Your task to perform on an android device: turn on improve location accuracy Image 0: 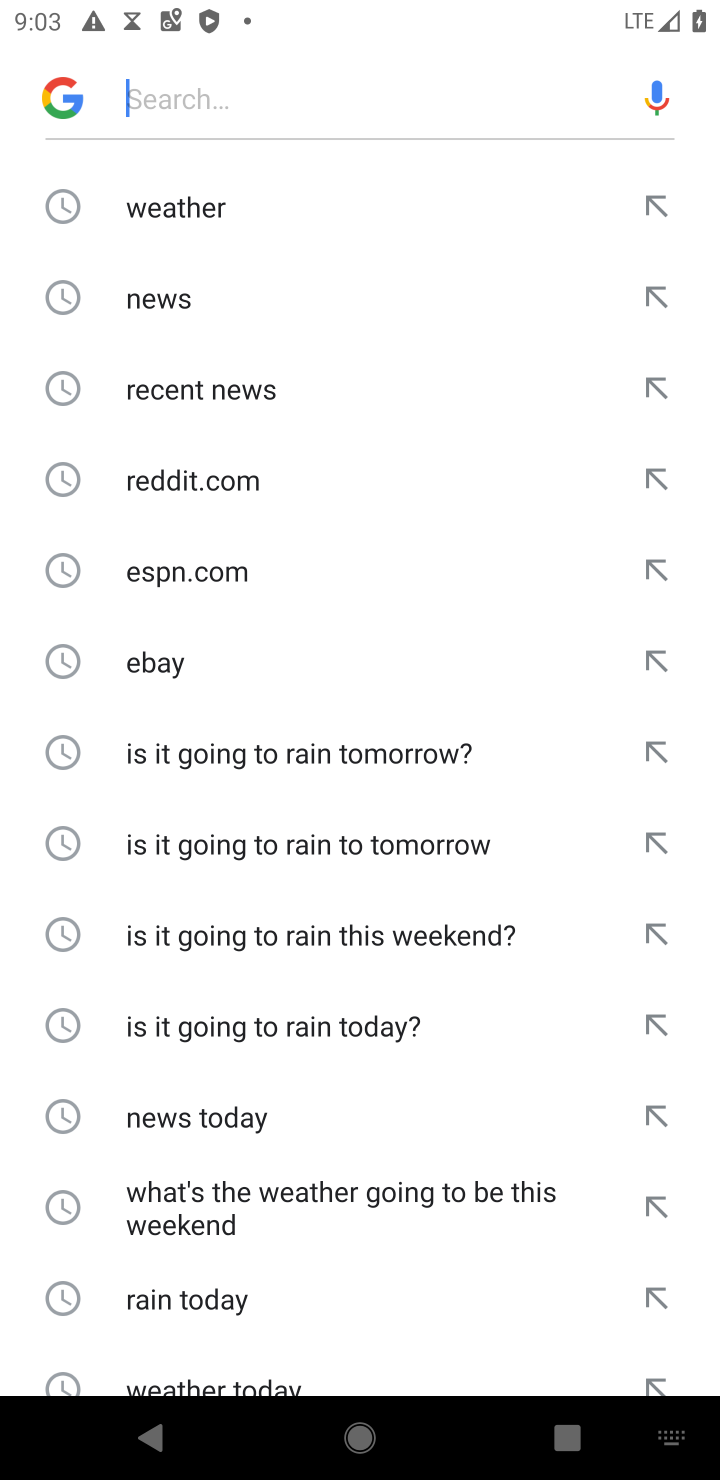
Step 0: press back button
Your task to perform on an android device: turn on improve location accuracy Image 1: 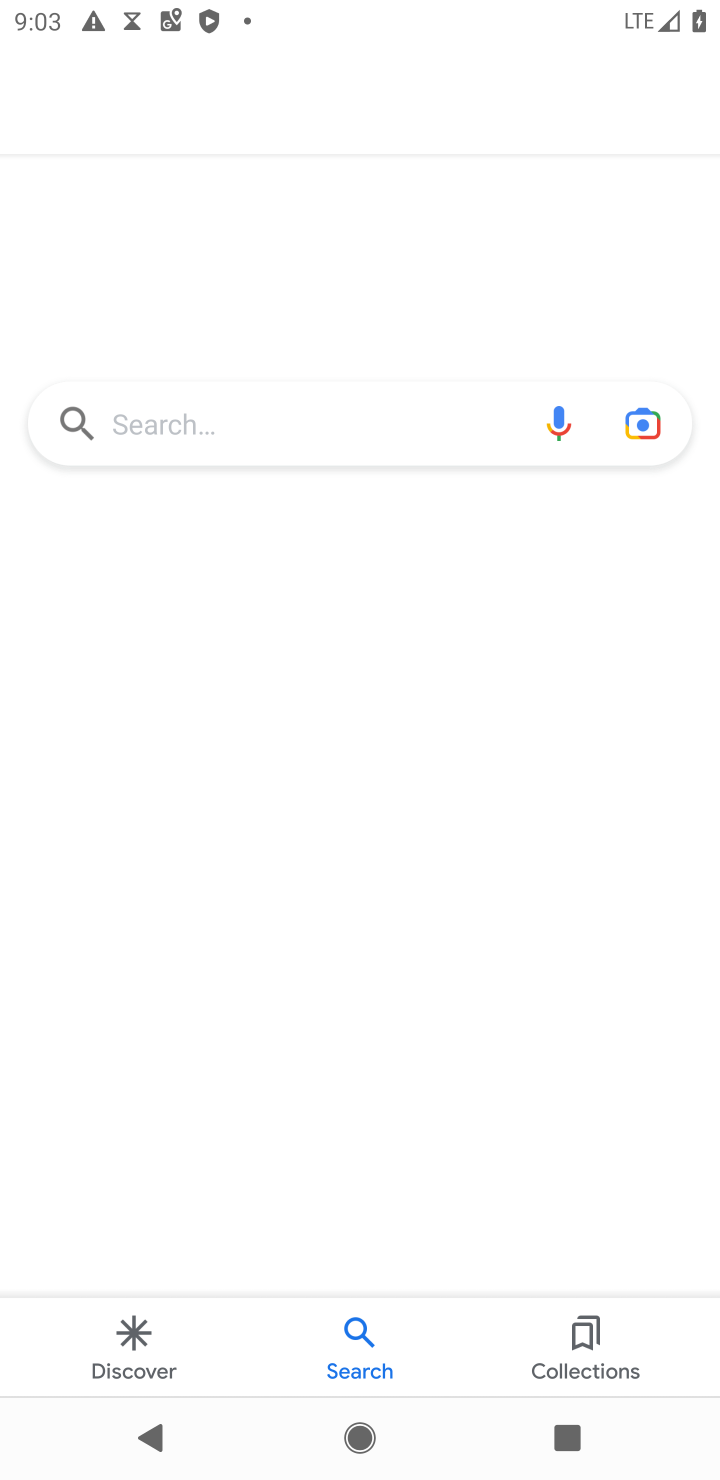
Step 1: press back button
Your task to perform on an android device: turn on improve location accuracy Image 2: 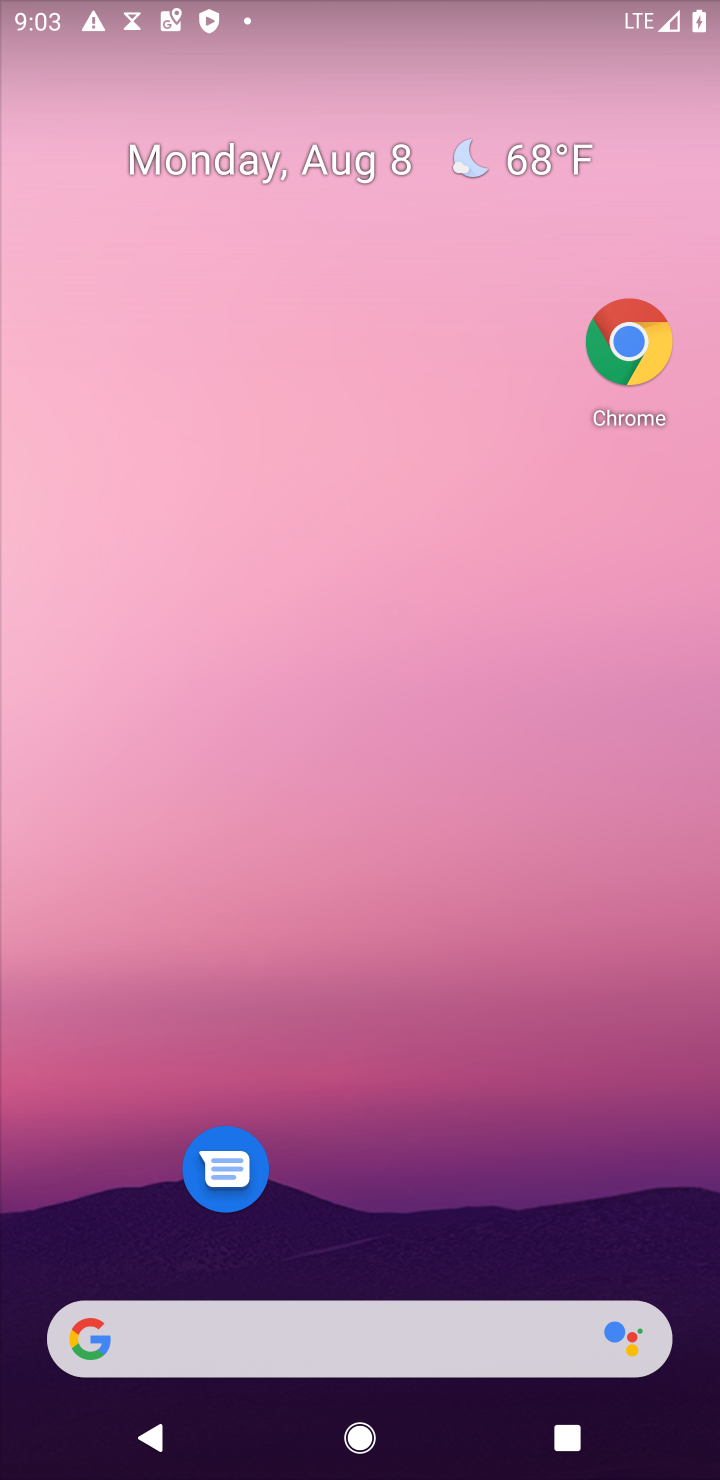
Step 2: drag from (344, 1311) to (565, 0)
Your task to perform on an android device: turn on improve location accuracy Image 3: 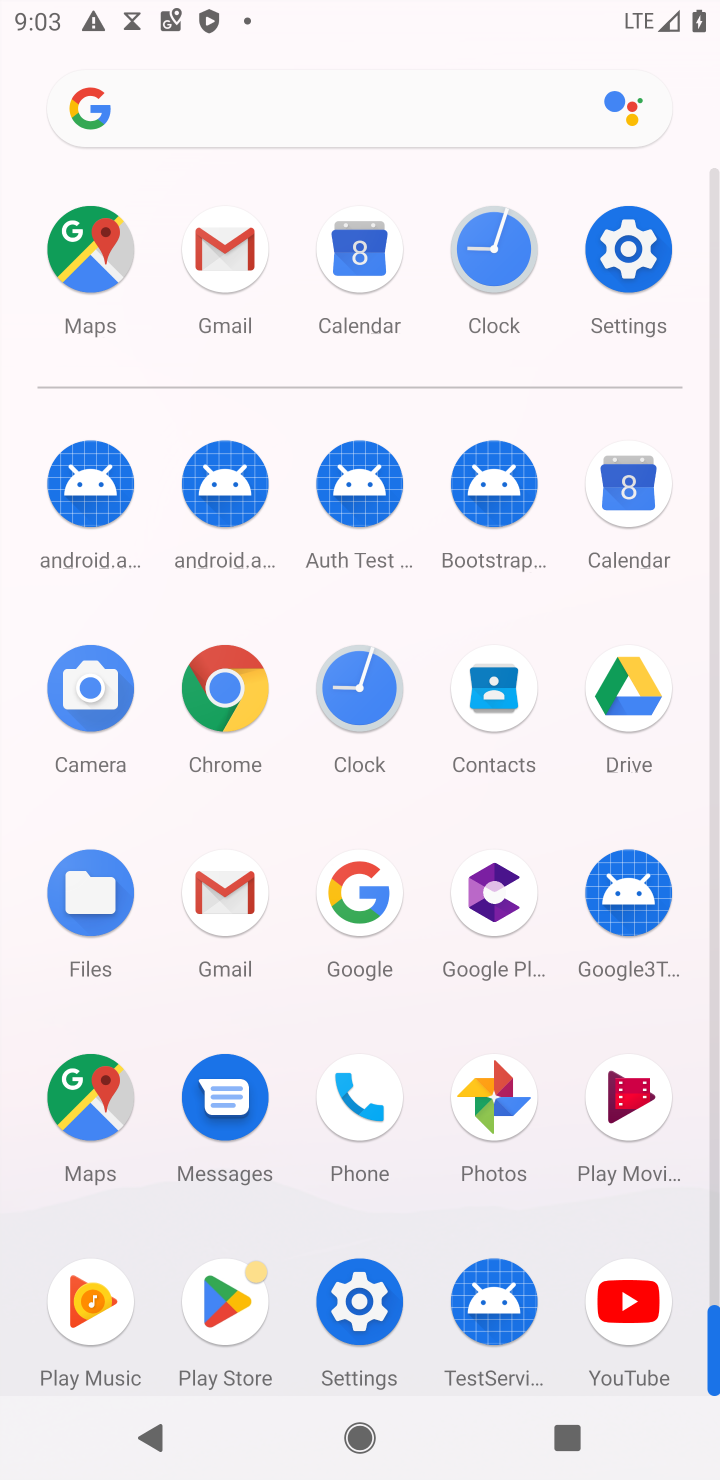
Step 3: click (637, 237)
Your task to perform on an android device: turn on improve location accuracy Image 4: 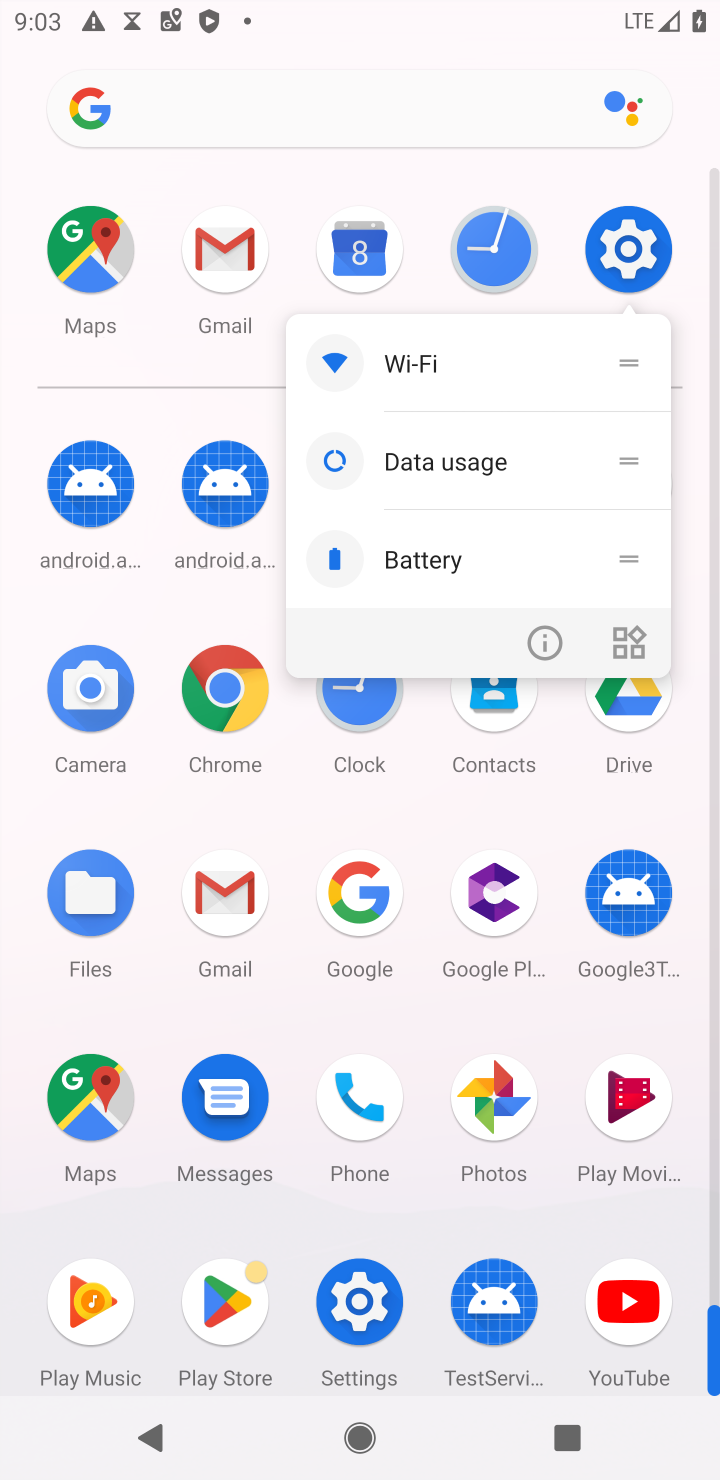
Step 4: click (648, 253)
Your task to perform on an android device: turn on improve location accuracy Image 5: 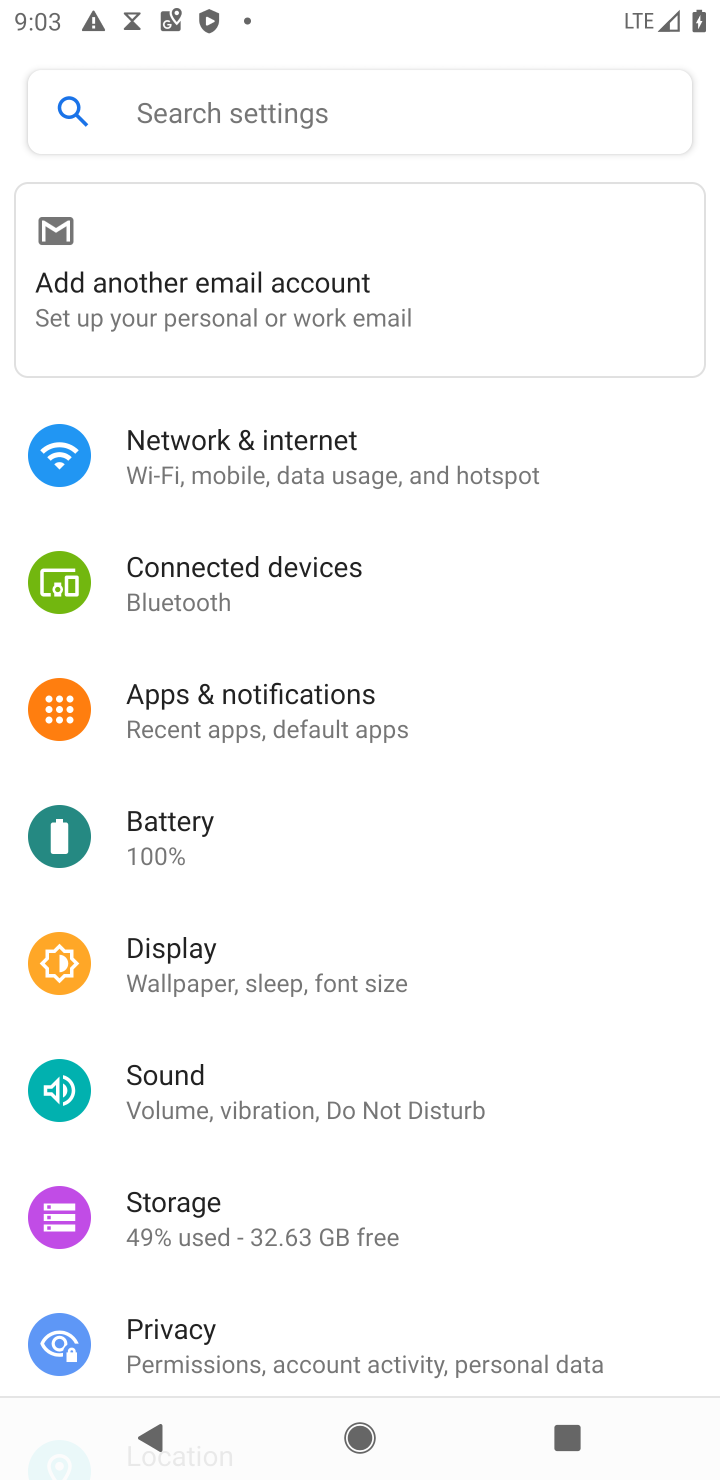
Step 5: drag from (303, 1238) to (485, 279)
Your task to perform on an android device: turn on improve location accuracy Image 6: 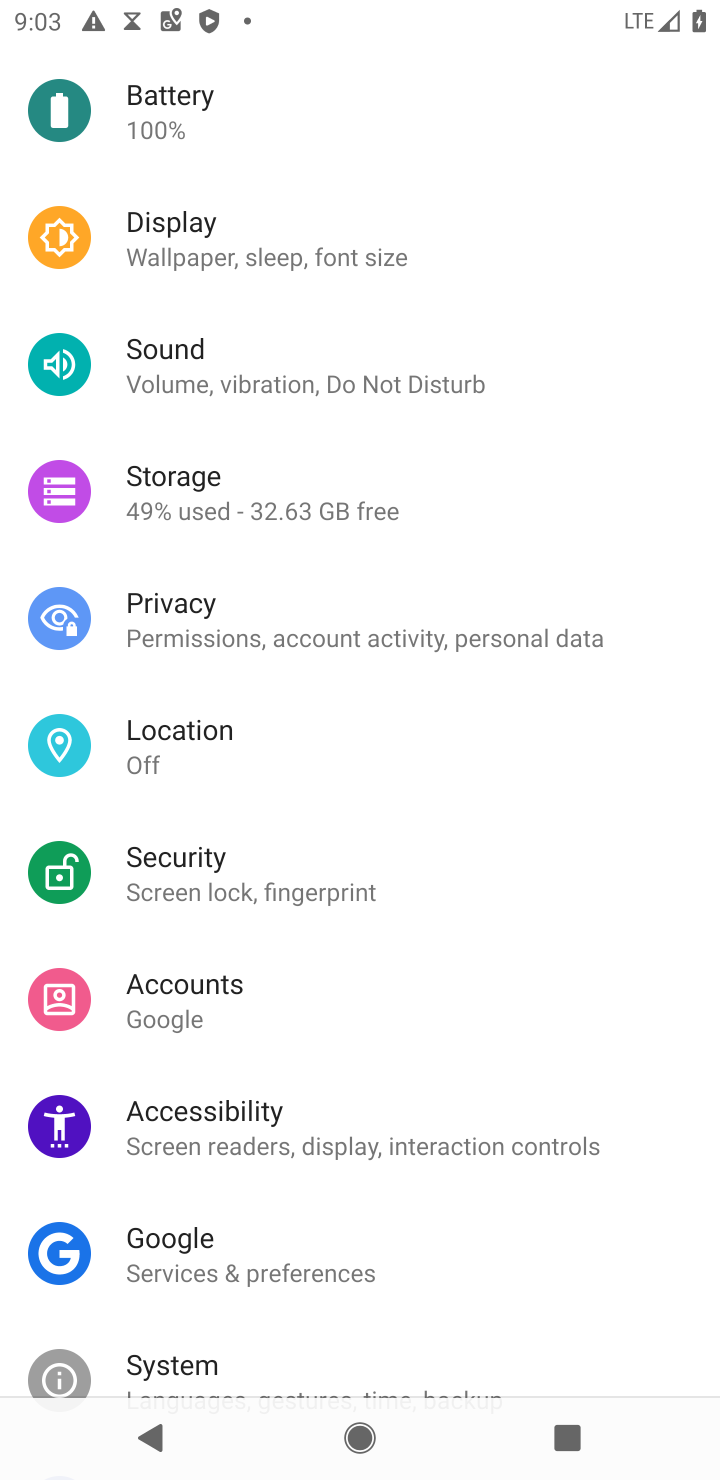
Step 6: click (204, 743)
Your task to perform on an android device: turn on improve location accuracy Image 7: 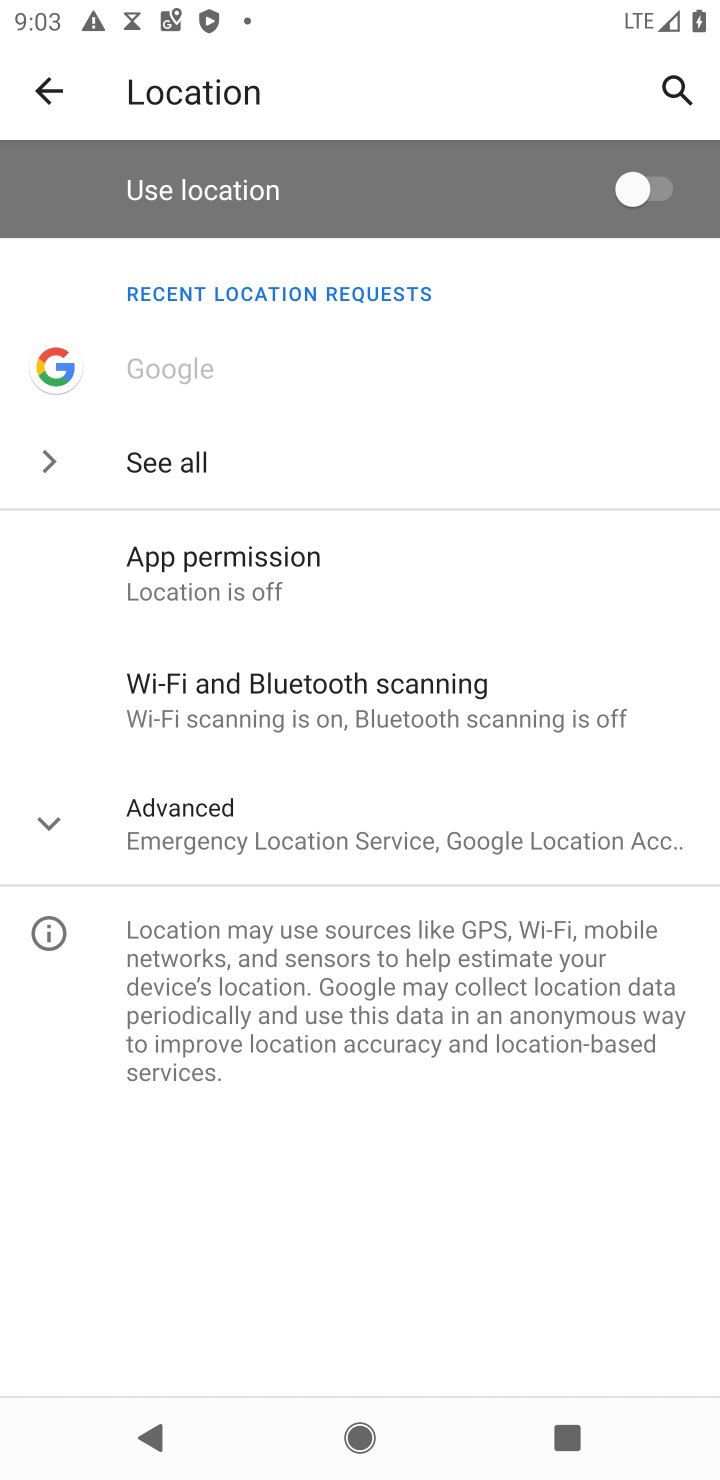
Step 7: click (218, 806)
Your task to perform on an android device: turn on improve location accuracy Image 8: 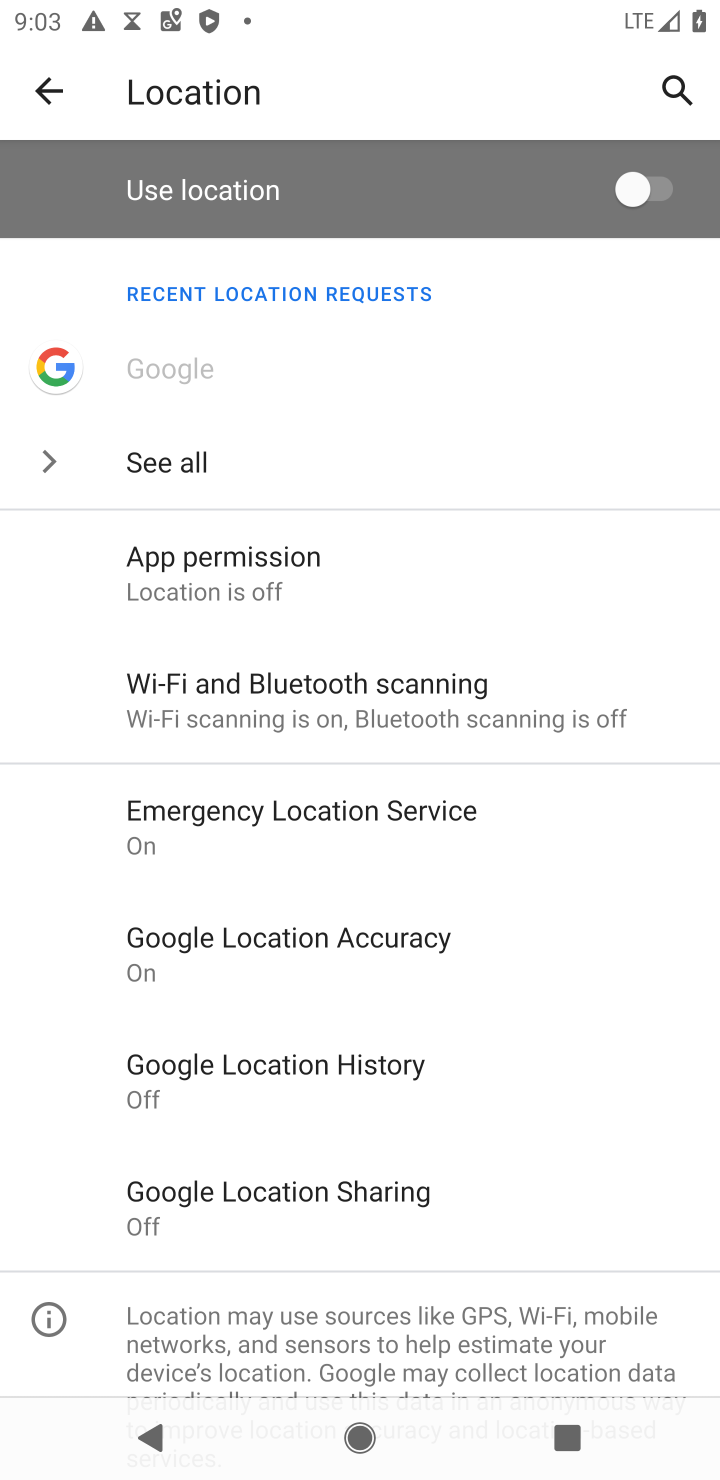
Step 8: click (287, 952)
Your task to perform on an android device: turn on improve location accuracy Image 9: 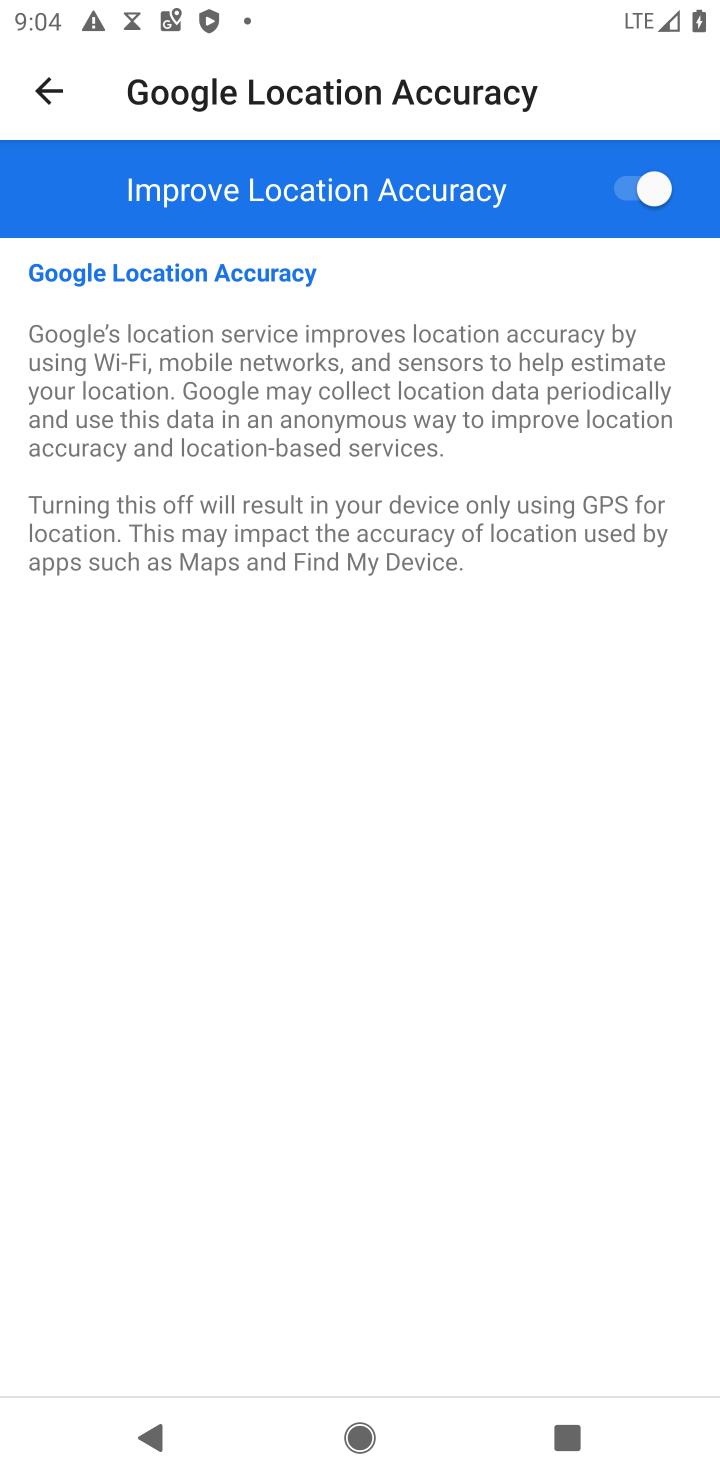
Step 9: task complete